Your task to perform on an android device: open device folders in google photos Image 0: 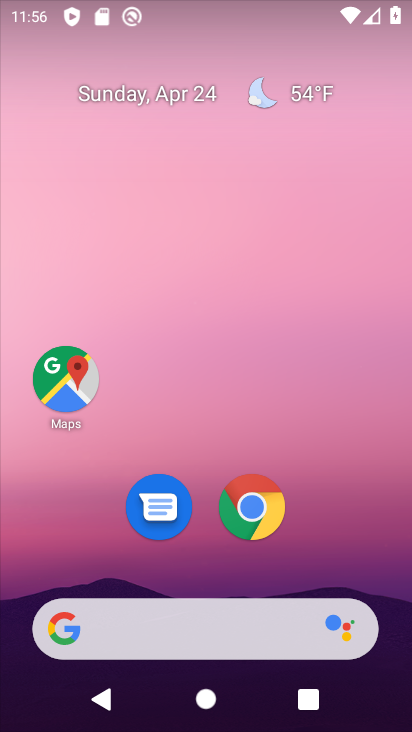
Step 0: drag from (304, 534) to (266, 23)
Your task to perform on an android device: open device folders in google photos Image 1: 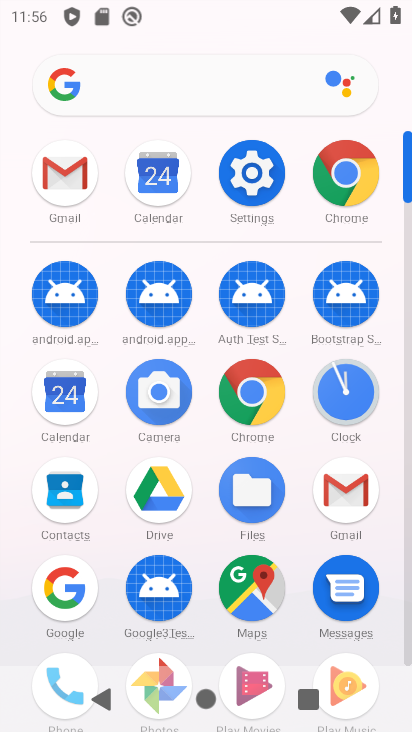
Step 1: drag from (2, 564) to (17, 269)
Your task to perform on an android device: open device folders in google photos Image 2: 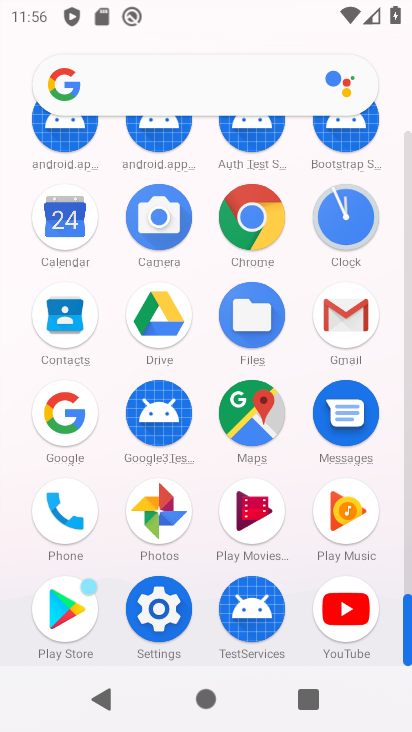
Step 2: click (156, 506)
Your task to perform on an android device: open device folders in google photos Image 3: 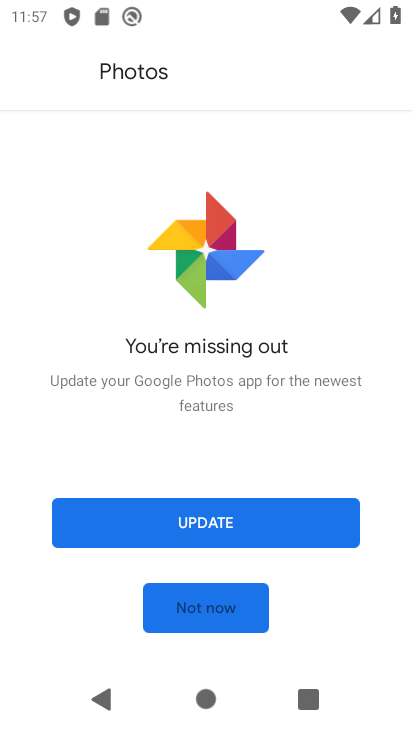
Step 3: click (227, 612)
Your task to perform on an android device: open device folders in google photos Image 4: 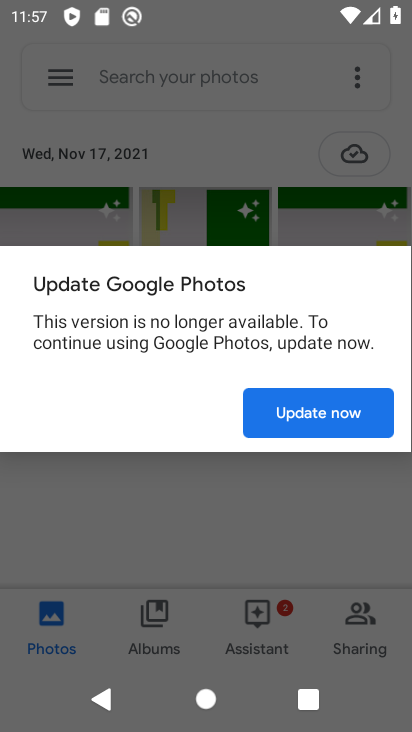
Step 4: click (277, 424)
Your task to perform on an android device: open device folders in google photos Image 5: 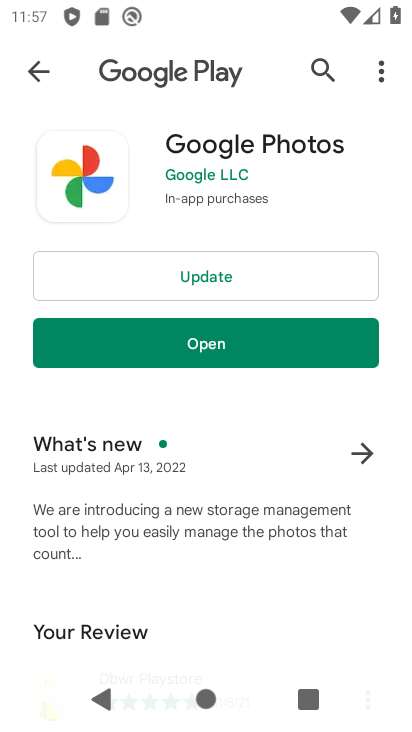
Step 5: click (232, 286)
Your task to perform on an android device: open device folders in google photos Image 6: 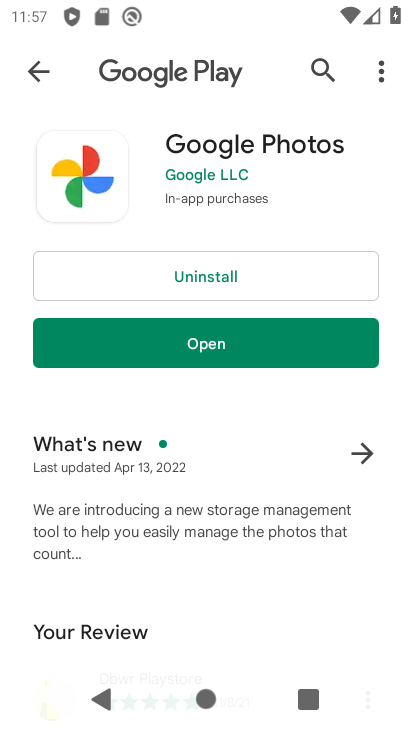
Step 6: click (192, 332)
Your task to perform on an android device: open device folders in google photos Image 7: 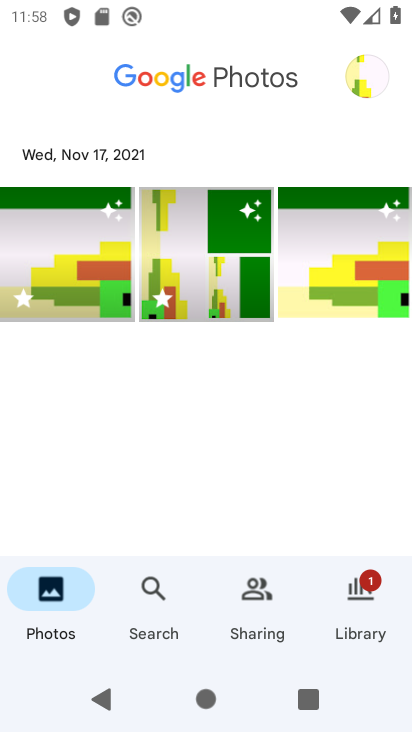
Step 7: click (358, 78)
Your task to perform on an android device: open device folders in google photos Image 8: 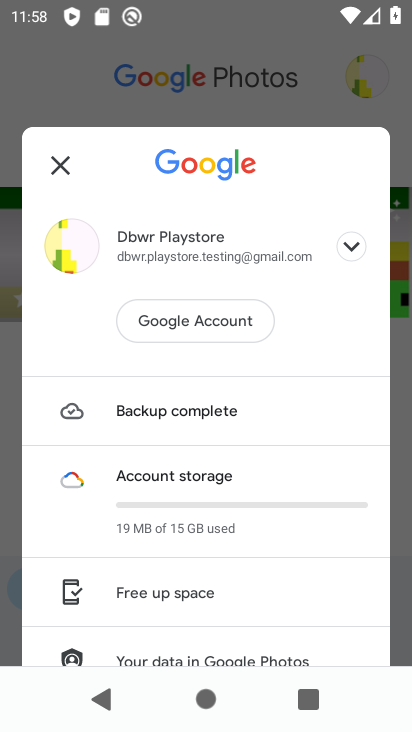
Step 8: drag from (227, 527) to (256, 166)
Your task to perform on an android device: open device folders in google photos Image 9: 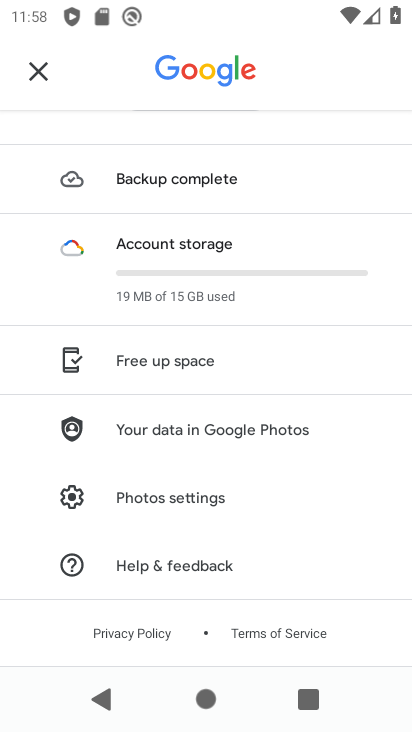
Step 9: click (200, 497)
Your task to perform on an android device: open device folders in google photos Image 10: 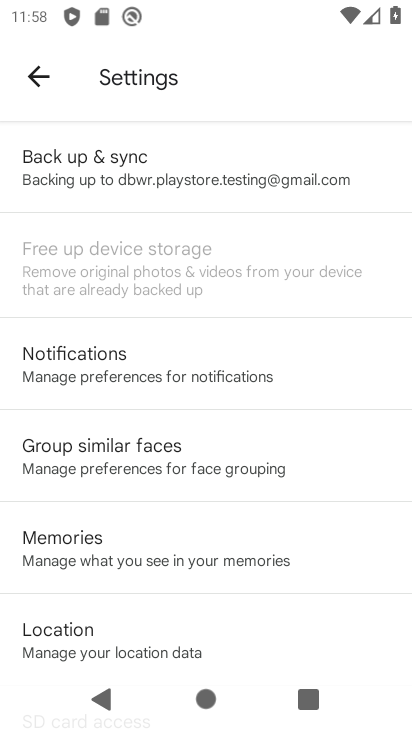
Step 10: task complete